Your task to perform on an android device: check android version Image 0: 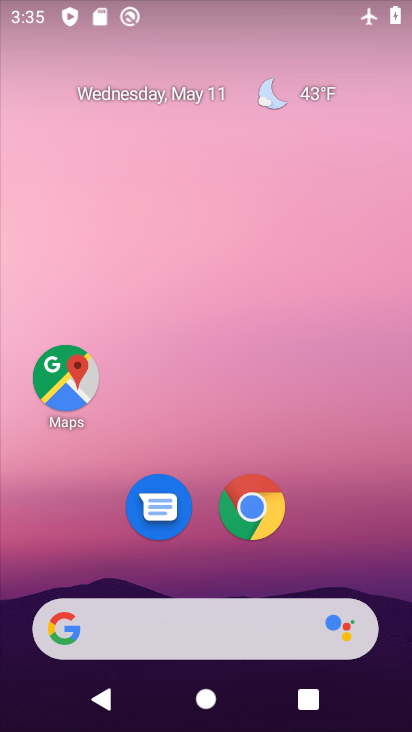
Step 0: drag from (391, 638) to (298, 15)
Your task to perform on an android device: check android version Image 1: 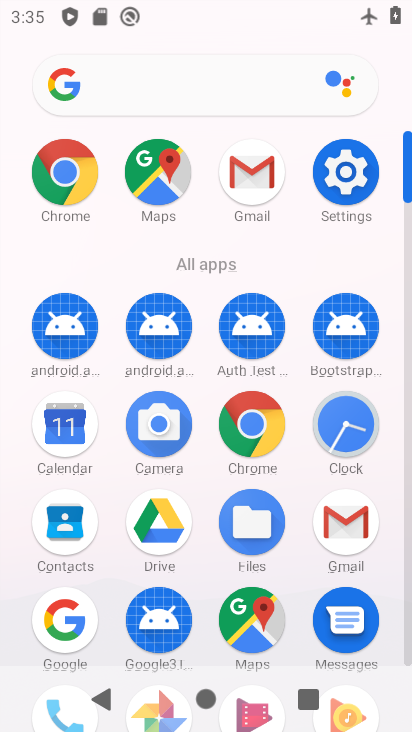
Step 1: click (405, 657)
Your task to perform on an android device: check android version Image 2: 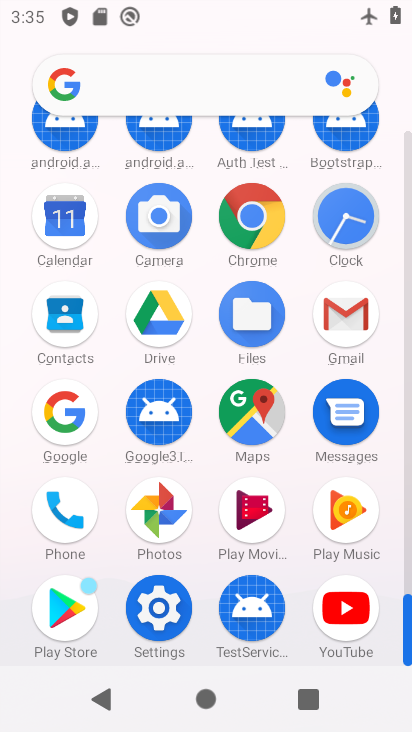
Step 2: click (158, 607)
Your task to perform on an android device: check android version Image 3: 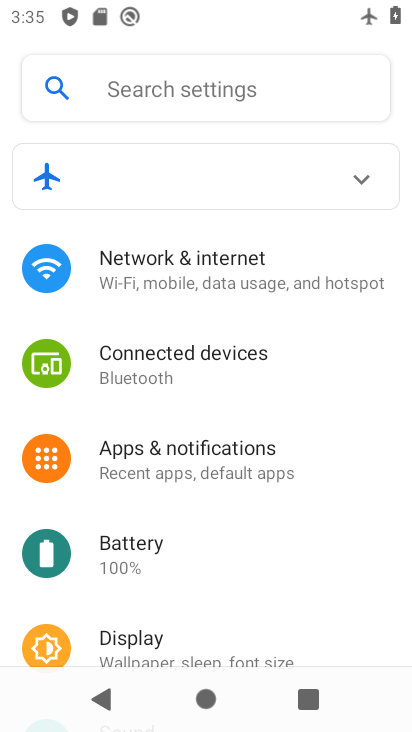
Step 3: drag from (327, 646) to (340, 302)
Your task to perform on an android device: check android version Image 4: 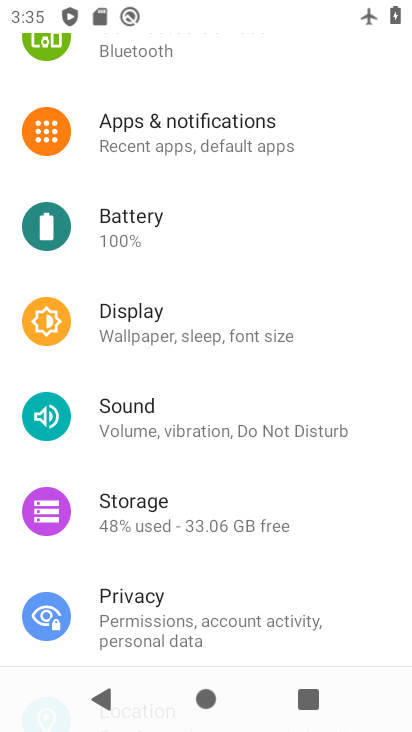
Step 4: drag from (339, 577) to (345, 264)
Your task to perform on an android device: check android version Image 5: 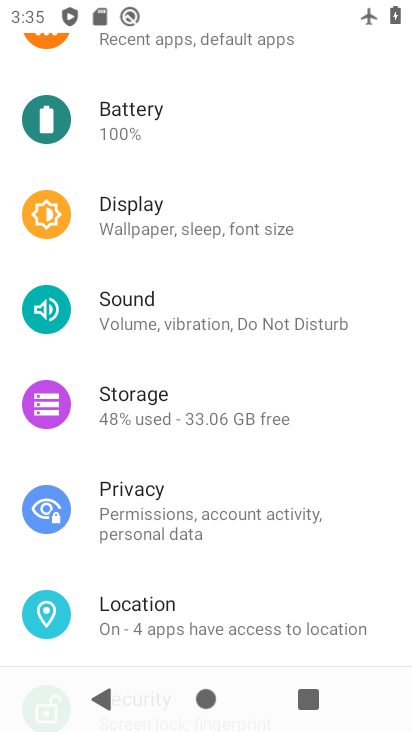
Step 5: drag from (337, 556) to (374, 133)
Your task to perform on an android device: check android version Image 6: 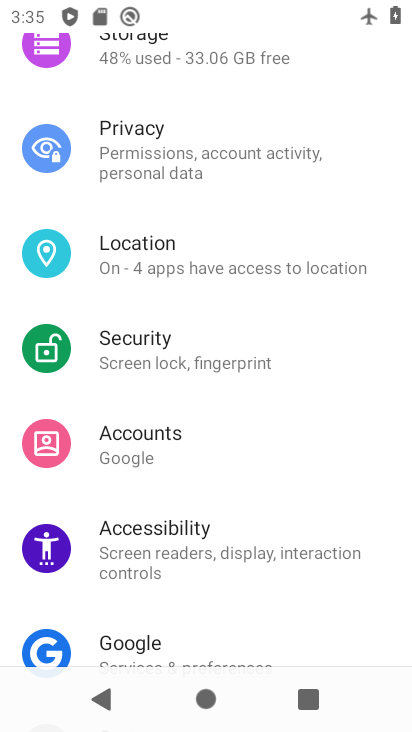
Step 6: drag from (354, 602) to (376, 176)
Your task to perform on an android device: check android version Image 7: 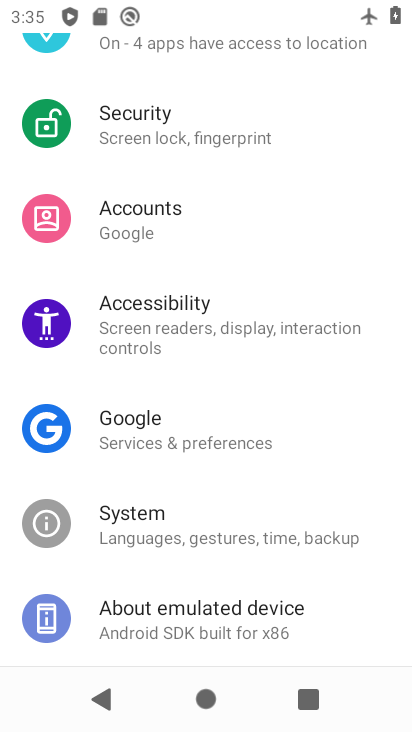
Step 7: click (211, 621)
Your task to perform on an android device: check android version Image 8: 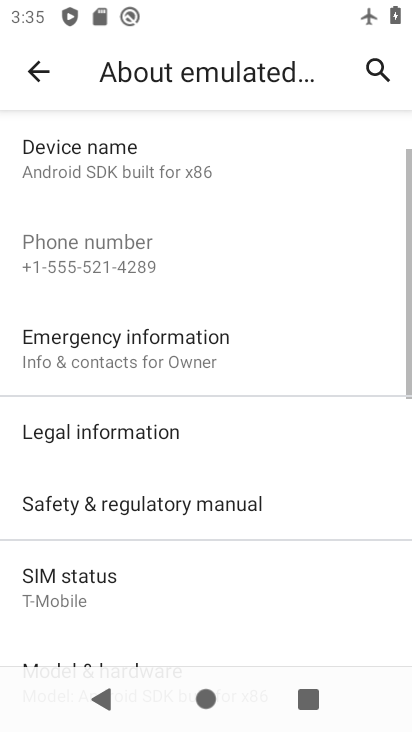
Step 8: drag from (279, 610) to (343, 164)
Your task to perform on an android device: check android version Image 9: 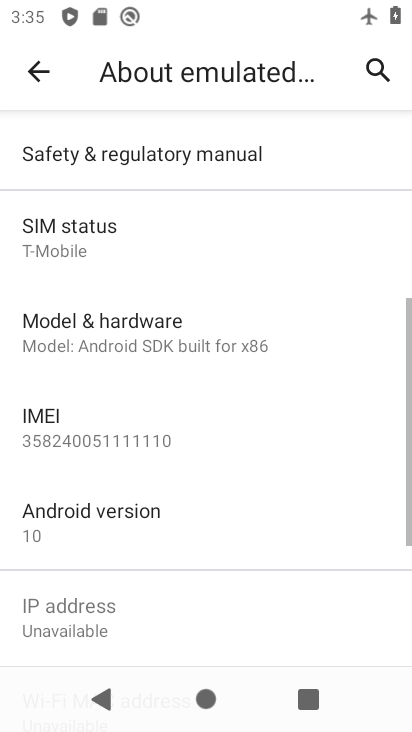
Step 9: click (46, 515)
Your task to perform on an android device: check android version Image 10: 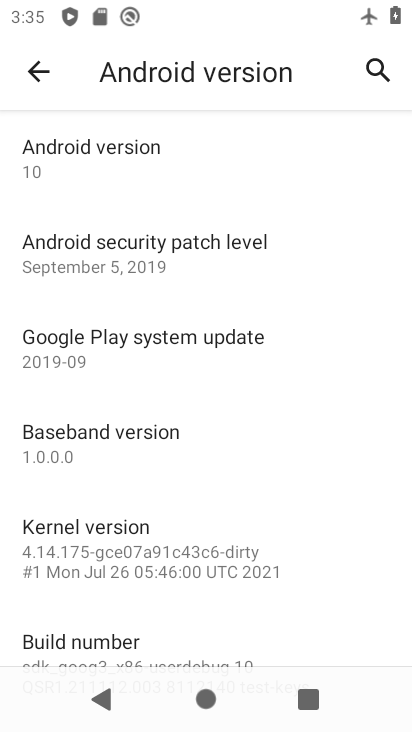
Step 10: task complete